Your task to perform on an android device: check storage Image 0: 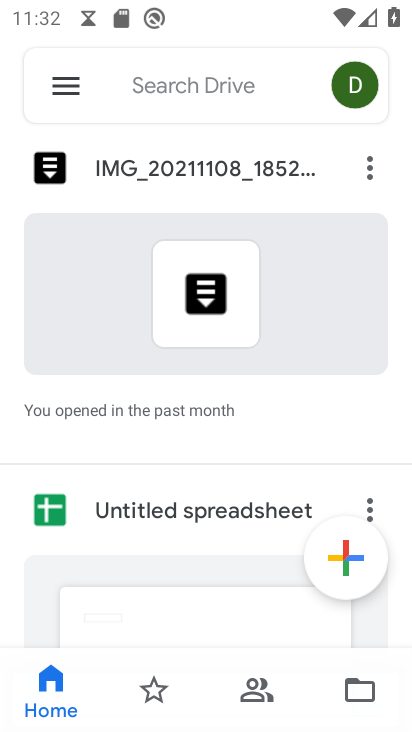
Step 0: press home button
Your task to perform on an android device: check storage Image 1: 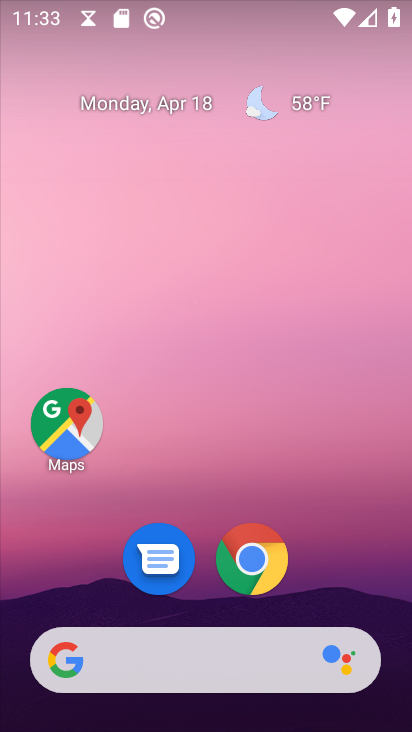
Step 1: drag from (321, 451) to (200, 86)
Your task to perform on an android device: check storage Image 2: 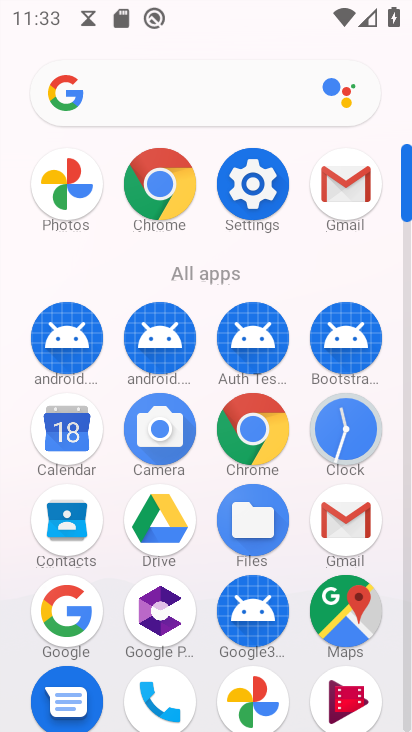
Step 2: click (252, 193)
Your task to perform on an android device: check storage Image 3: 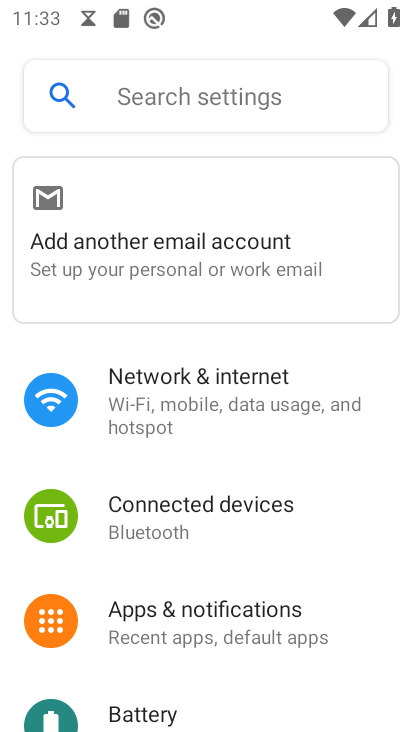
Step 3: drag from (222, 666) to (227, 144)
Your task to perform on an android device: check storage Image 4: 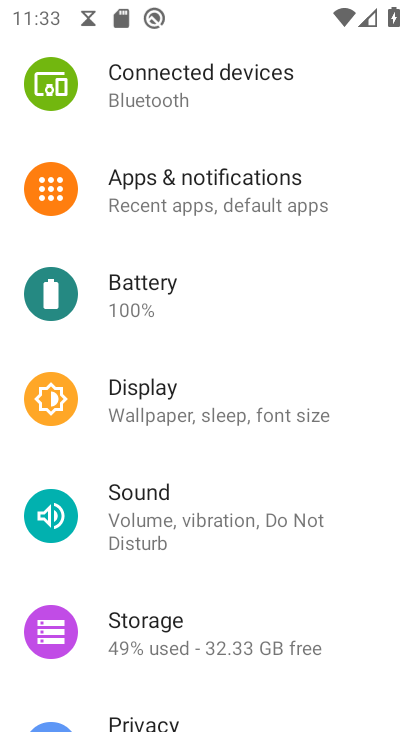
Step 4: click (172, 647)
Your task to perform on an android device: check storage Image 5: 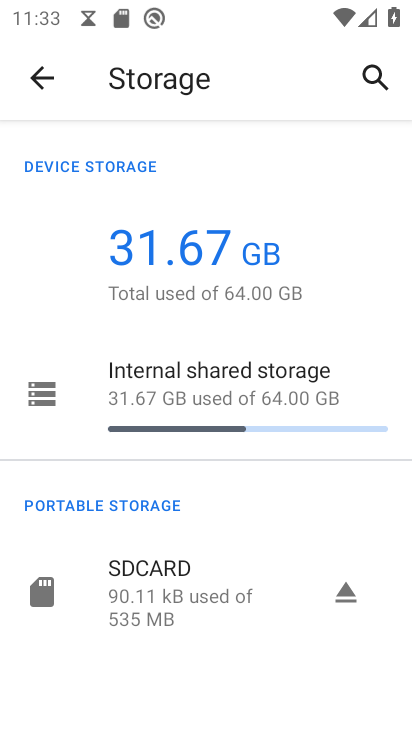
Step 5: task complete